Your task to perform on an android device: What's on my calendar today? Image 0: 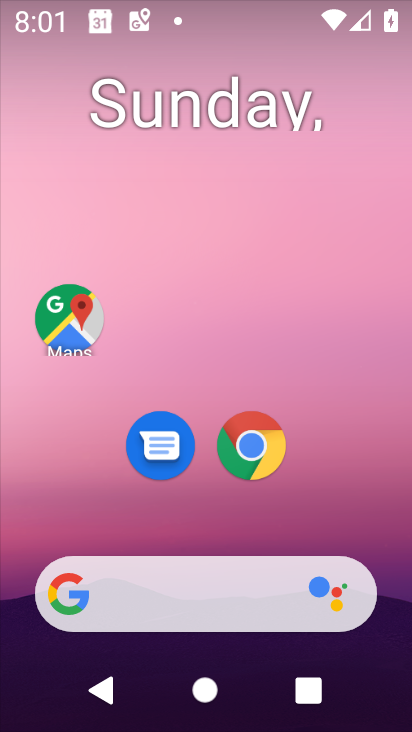
Step 0: drag from (69, 589) to (274, 186)
Your task to perform on an android device: What's on my calendar today? Image 1: 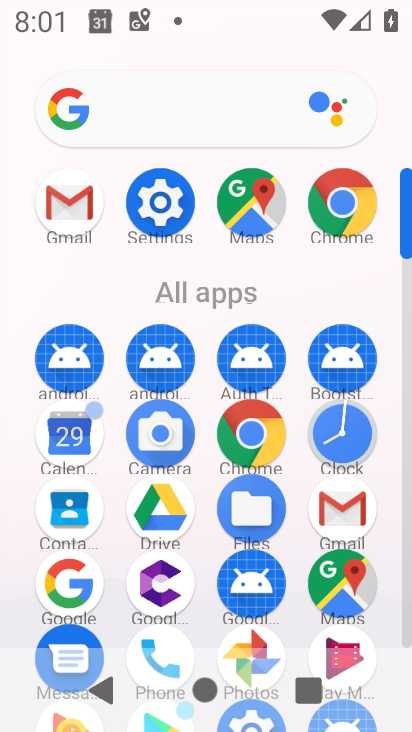
Step 1: click (66, 437)
Your task to perform on an android device: What's on my calendar today? Image 2: 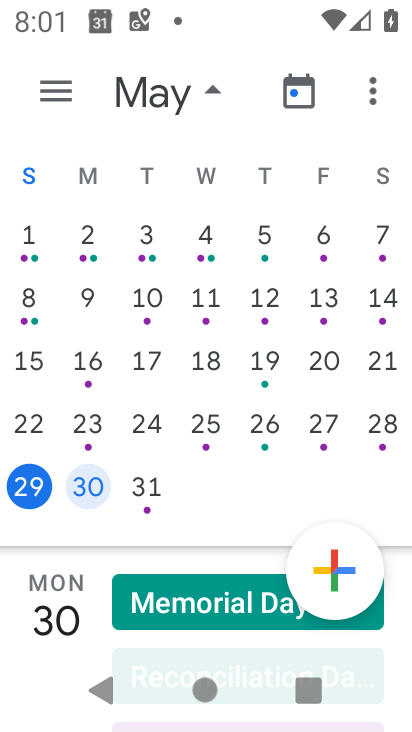
Step 2: click (36, 489)
Your task to perform on an android device: What's on my calendar today? Image 3: 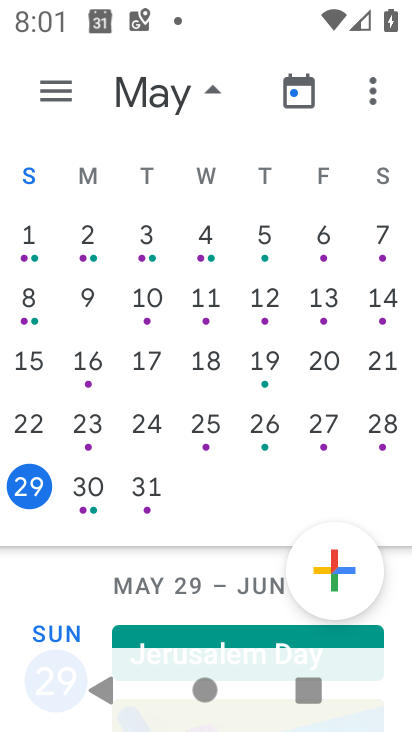
Step 3: task complete